Your task to perform on an android device: open chrome and create a bookmark for the current page Image 0: 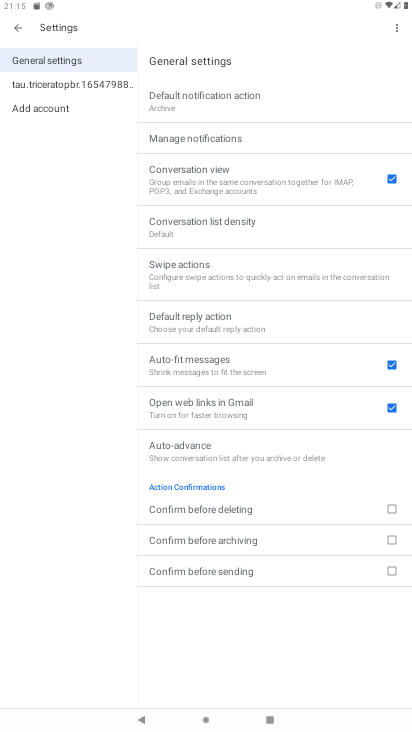
Step 0: press home button
Your task to perform on an android device: open chrome and create a bookmark for the current page Image 1: 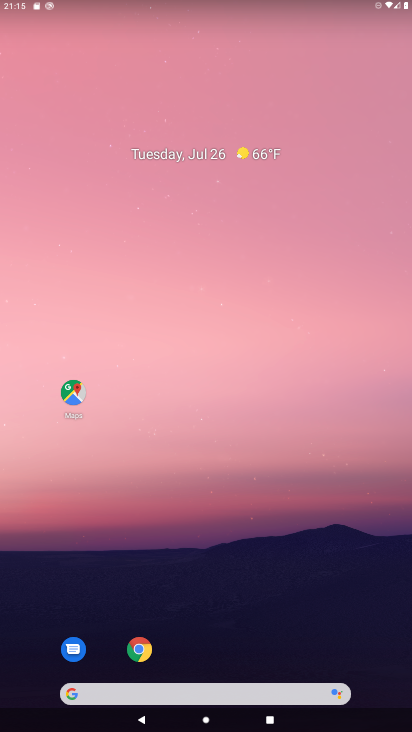
Step 1: click (150, 651)
Your task to perform on an android device: open chrome and create a bookmark for the current page Image 2: 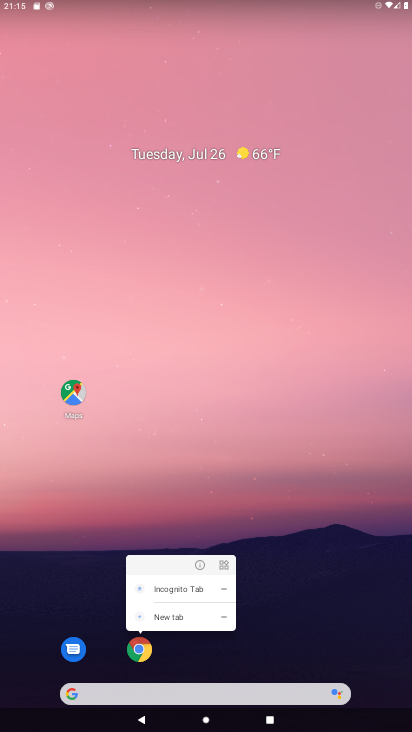
Step 2: click (150, 651)
Your task to perform on an android device: open chrome and create a bookmark for the current page Image 3: 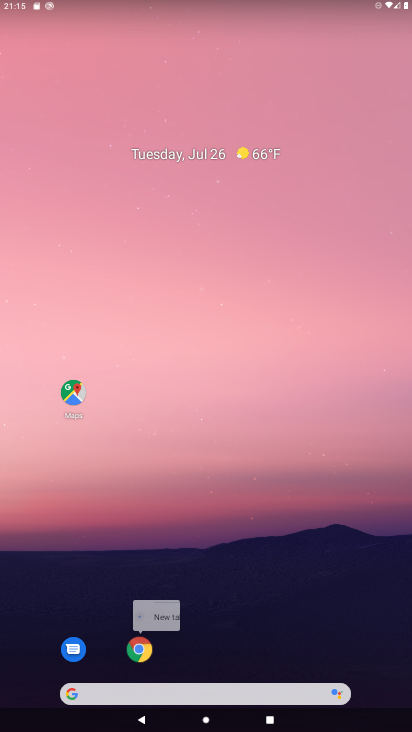
Step 3: click (150, 651)
Your task to perform on an android device: open chrome and create a bookmark for the current page Image 4: 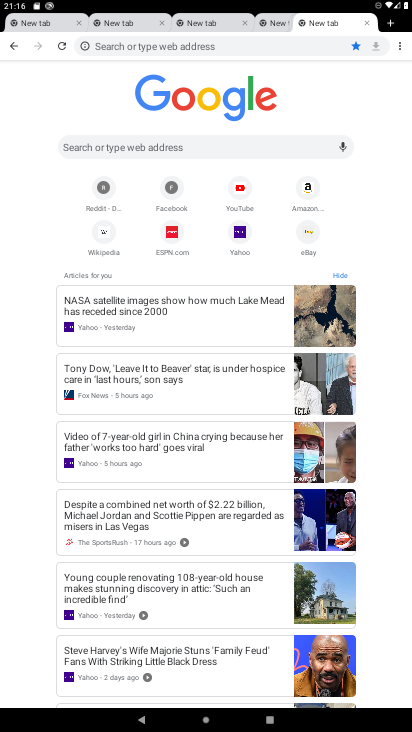
Step 4: task complete